Your task to perform on an android device: toggle notification dots Image 0: 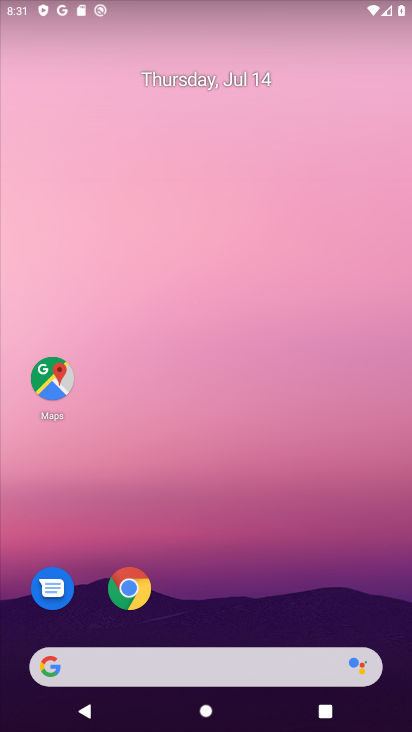
Step 0: drag from (275, 625) to (184, 107)
Your task to perform on an android device: toggle notification dots Image 1: 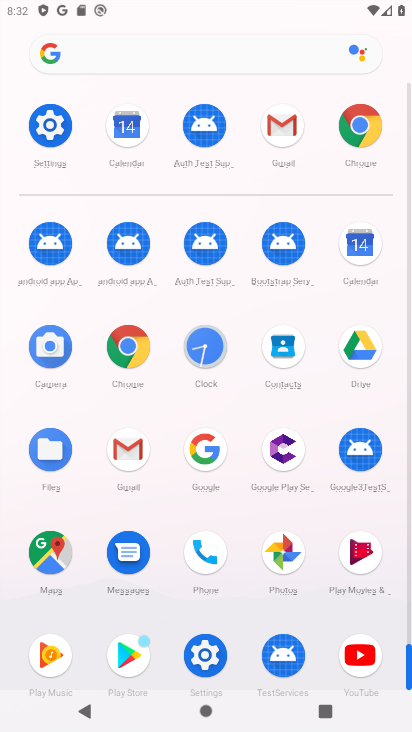
Step 1: click (52, 121)
Your task to perform on an android device: toggle notification dots Image 2: 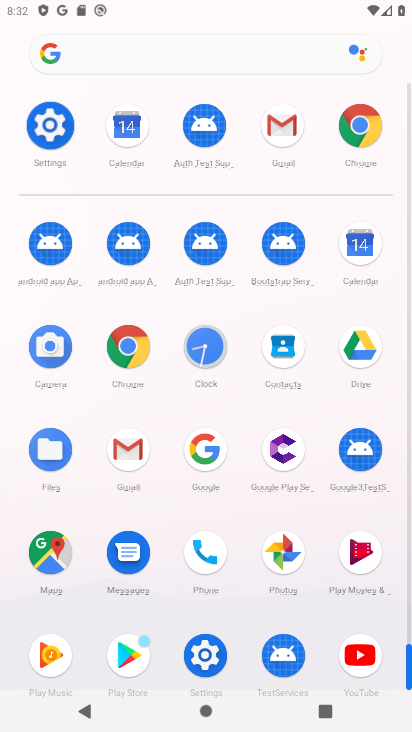
Step 2: click (52, 121)
Your task to perform on an android device: toggle notification dots Image 3: 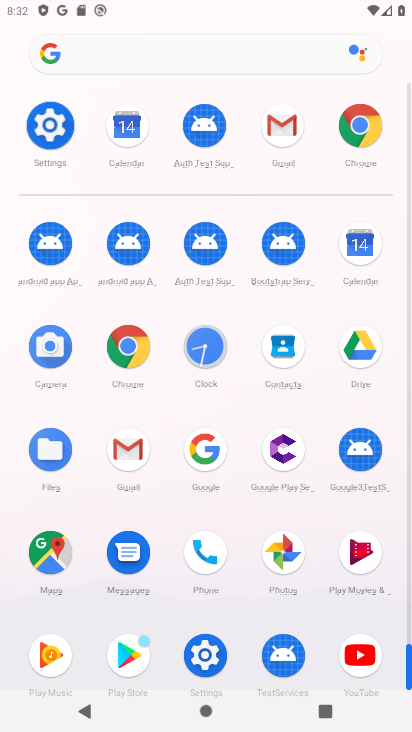
Step 3: click (52, 122)
Your task to perform on an android device: toggle notification dots Image 4: 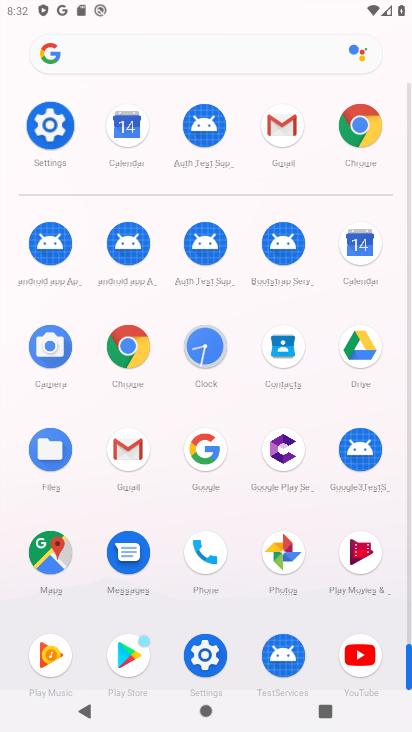
Step 4: click (52, 123)
Your task to perform on an android device: toggle notification dots Image 5: 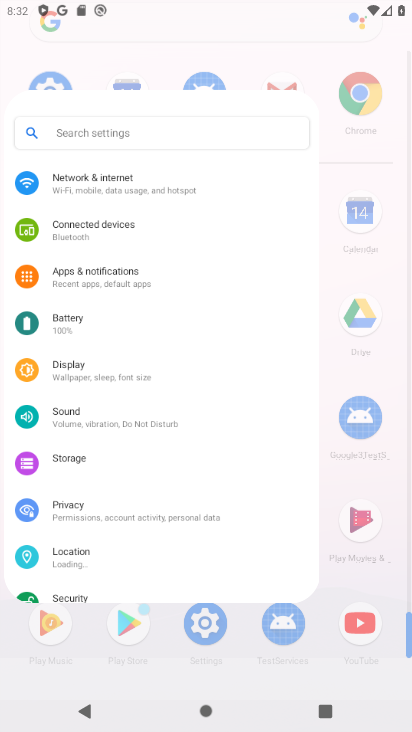
Step 5: click (52, 123)
Your task to perform on an android device: toggle notification dots Image 6: 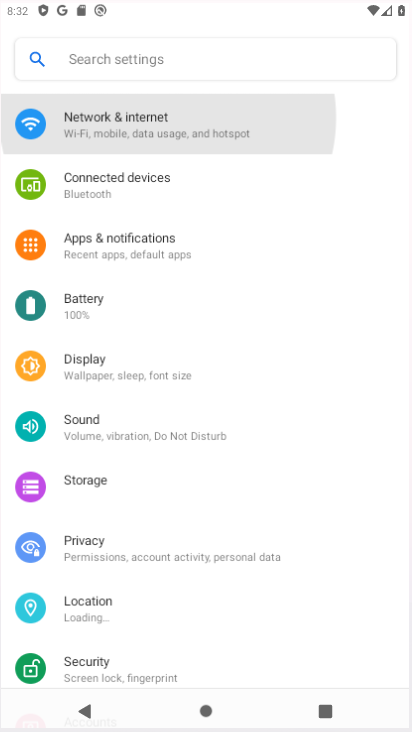
Step 6: click (52, 123)
Your task to perform on an android device: toggle notification dots Image 7: 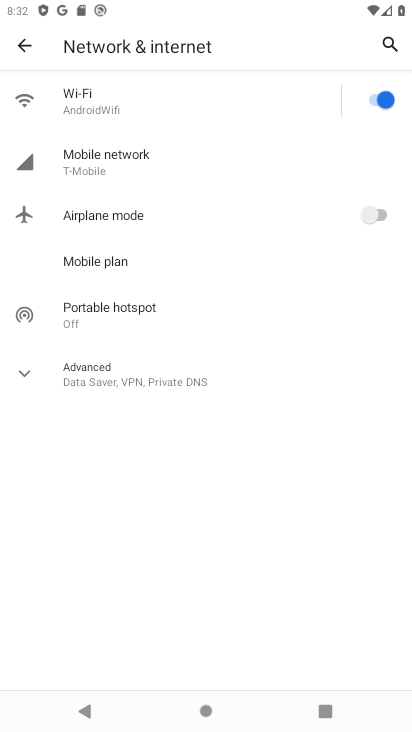
Step 7: click (28, 50)
Your task to perform on an android device: toggle notification dots Image 8: 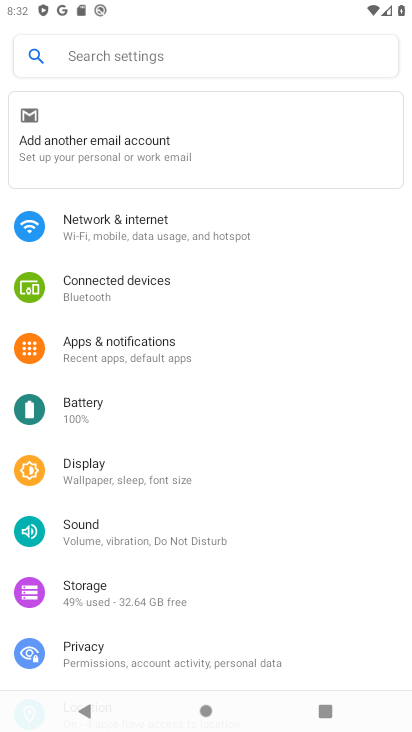
Step 8: click (116, 338)
Your task to perform on an android device: toggle notification dots Image 9: 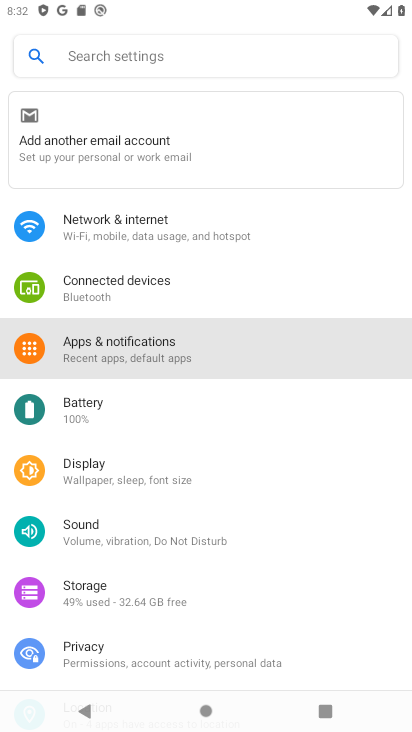
Step 9: click (115, 338)
Your task to perform on an android device: toggle notification dots Image 10: 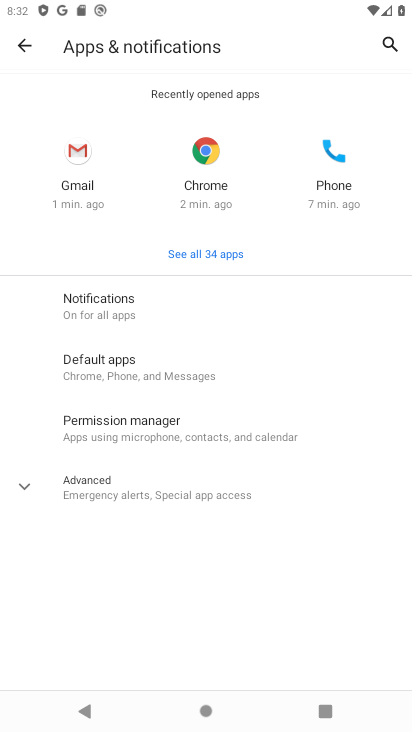
Step 10: click (94, 299)
Your task to perform on an android device: toggle notification dots Image 11: 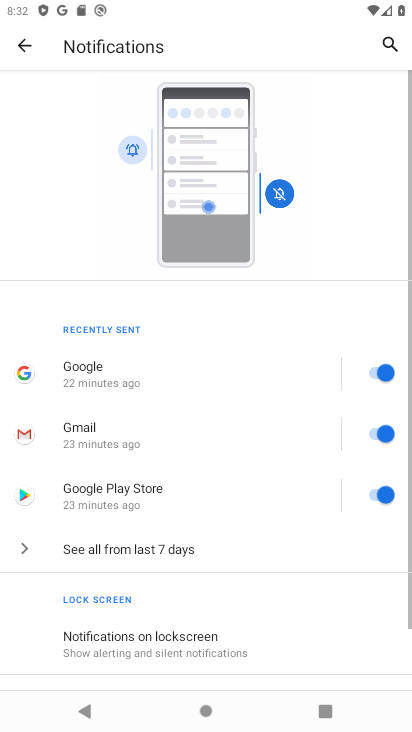
Step 11: drag from (166, 635) to (118, 164)
Your task to perform on an android device: toggle notification dots Image 12: 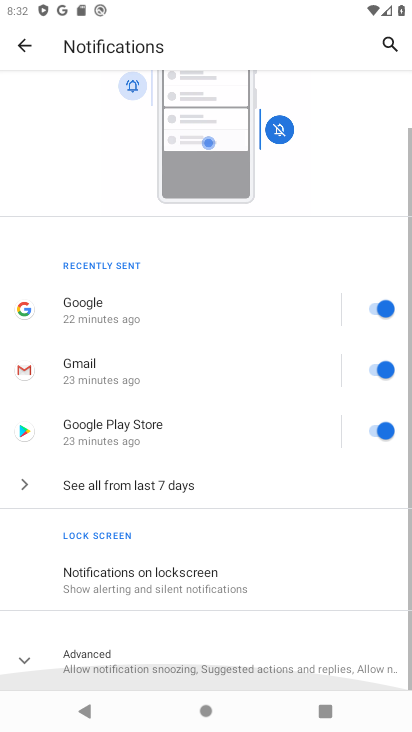
Step 12: drag from (183, 479) to (121, 141)
Your task to perform on an android device: toggle notification dots Image 13: 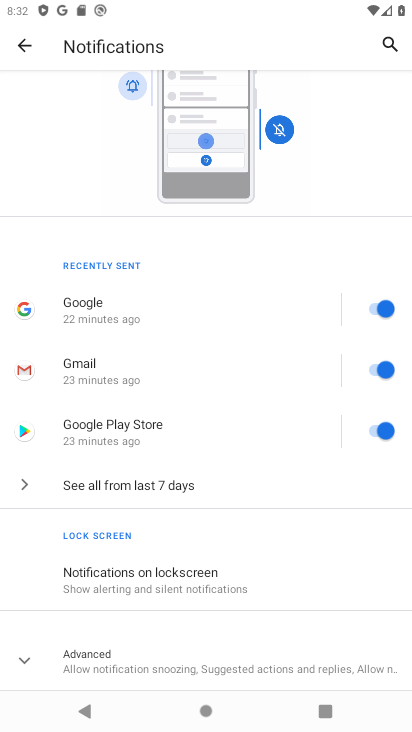
Step 13: click (105, 662)
Your task to perform on an android device: toggle notification dots Image 14: 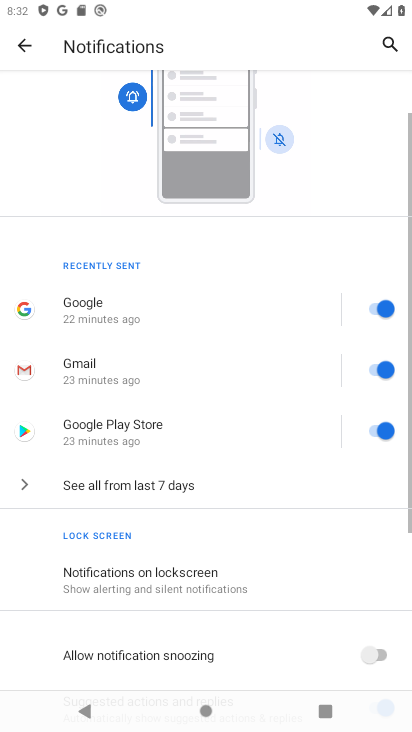
Step 14: drag from (258, 597) to (264, 170)
Your task to perform on an android device: toggle notification dots Image 15: 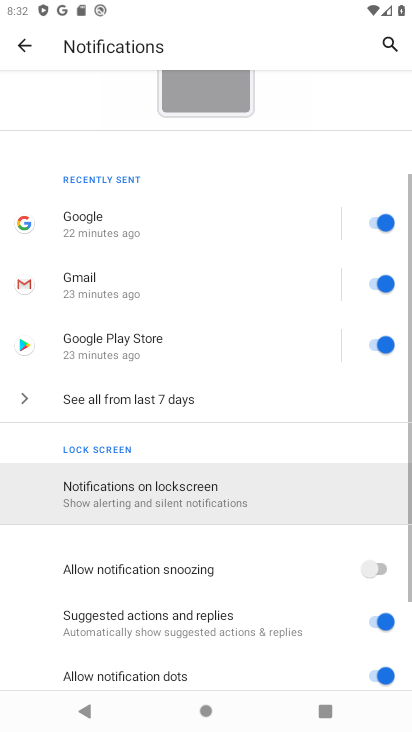
Step 15: drag from (261, 473) to (258, 105)
Your task to perform on an android device: toggle notification dots Image 16: 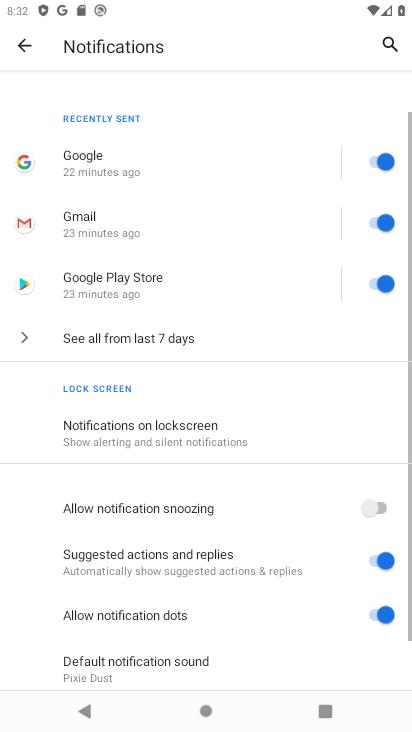
Step 16: drag from (246, 535) to (248, 224)
Your task to perform on an android device: toggle notification dots Image 17: 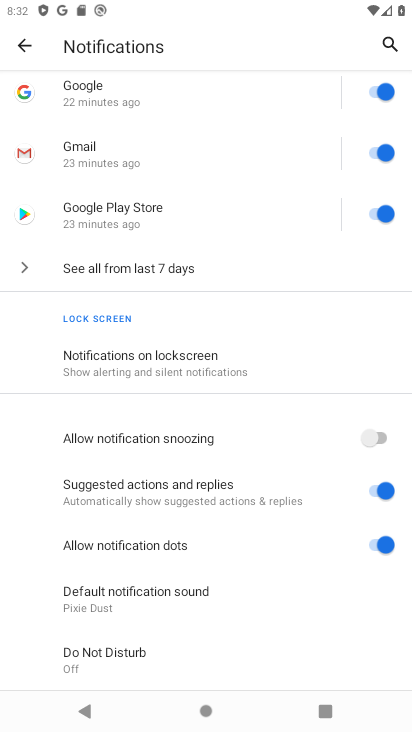
Step 17: click (392, 543)
Your task to perform on an android device: toggle notification dots Image 18: 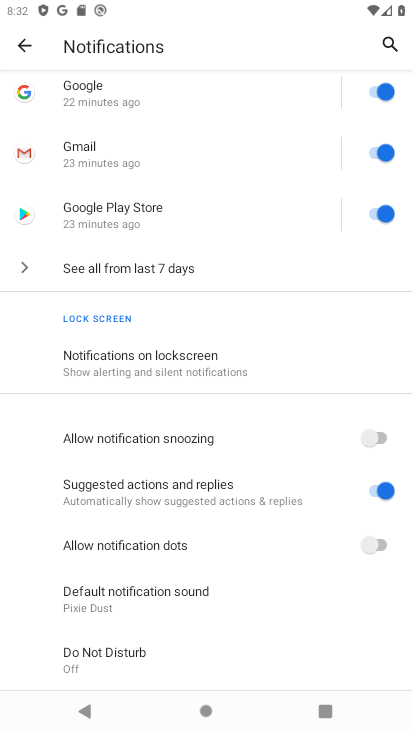
Step 18: task complete